Your task to perform on an android device: turn off wifi Image 0: 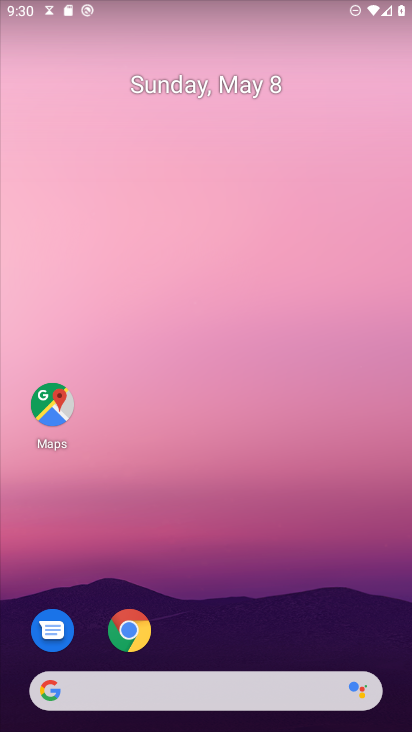
Step 0: drag from (194, 686) to (323, 45)
Your task to perform on an android device: turn off wifi Image 1: 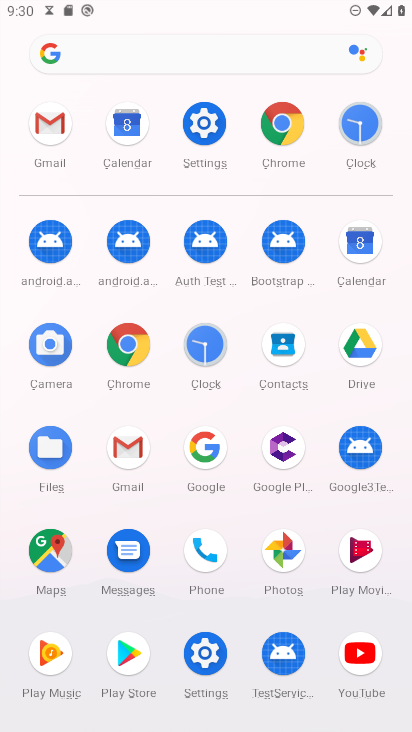
Step 1: click (217, 122)
Your task to perform on an android device: turn off wifi Image 2: 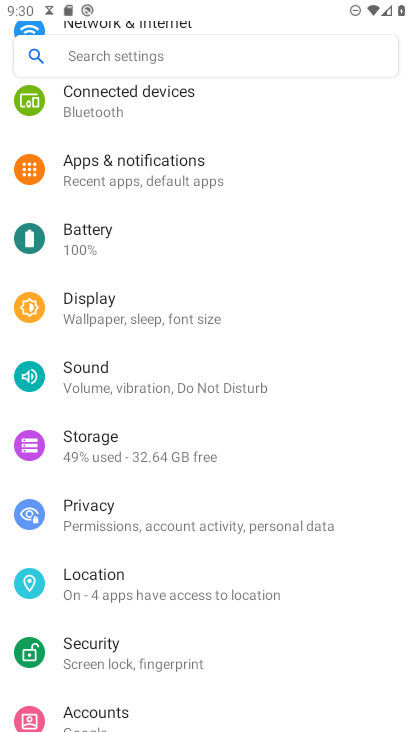
Step 2: drag from (258, 138) to (262, 486)
Your task to perform on an android device: turn off wifi Image 3: 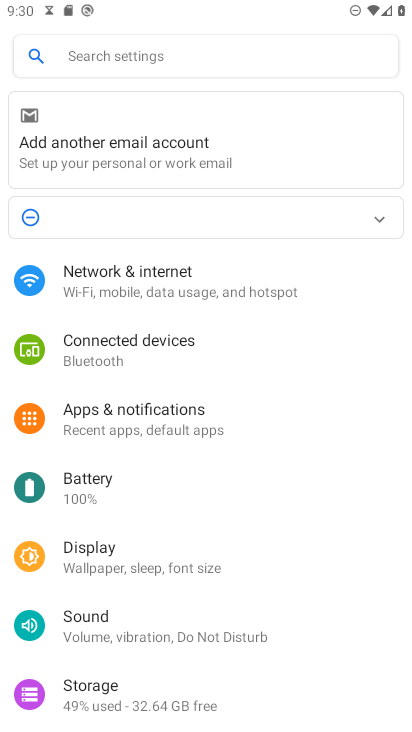
Step 3: click (213, 289)
Your task to perform on an android device: turn off wifi Image 4: 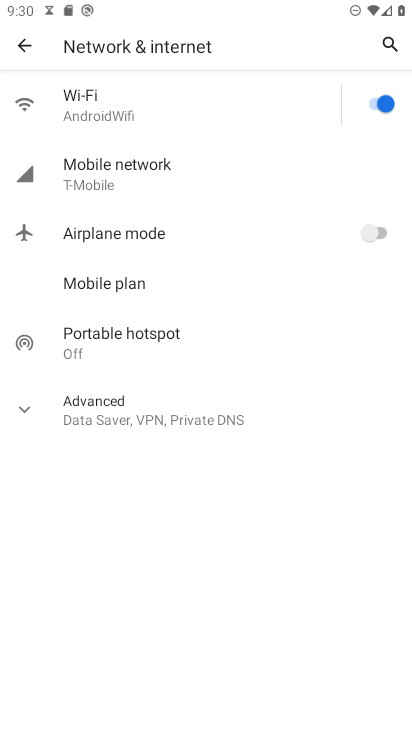
Step 4: click (371, 111)
Your task to perform on an android device: turn off wifi Image 5: 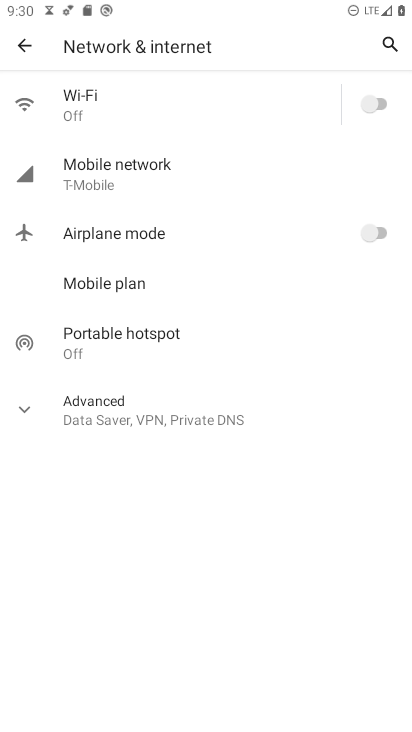
Step 5: task complete